Your task to perform on an android device: Add razer blade to the cart on newegg.com, then select checkout. Image 0: 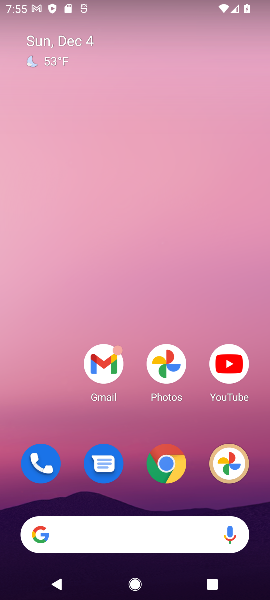
Step 0: click (150, 530)
Your task to perform on an android device: Add razer blade to the cart on newegg.com, then select checkout. Image 1: 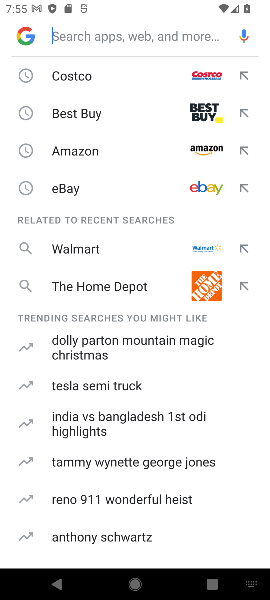
Step 1: type "newegg"
Your task to perform on an android device: Add razer blade to the cart on newegg.com, then select checkout. Image 2: 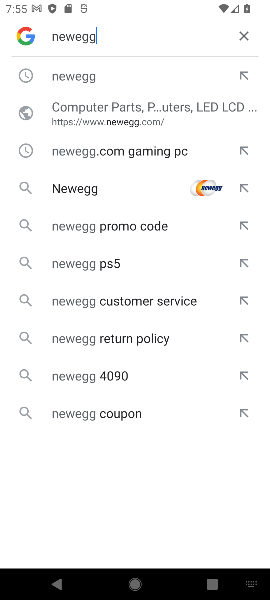
Step 2: click (109, 100)
Your task to perform on an android device: Add razer blade to the cart on newegg.com, then select checkout. Image 3: 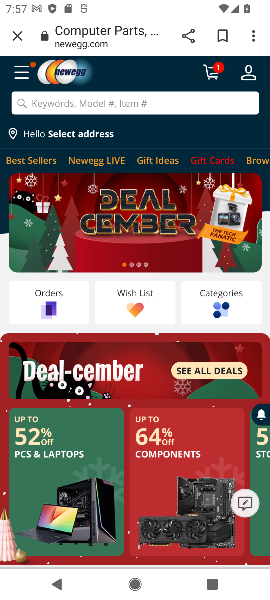
Step 3: click (132, 98)
Your task to perform on an android device: Add razer blade to the cart on newegg.com, then select checkout. Image 4: 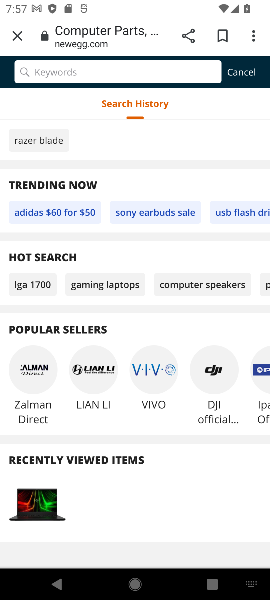
Step 4: type "razer bllade"
Your task to perform on an android device: Add razer blade to the cart on newegg.com, then select checkout. Image 5: 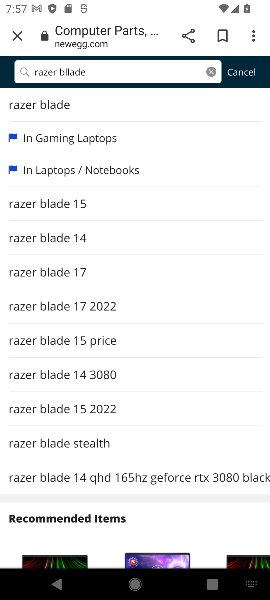
Step 5: click (64, 112)
Your task to perform on an android device: Add razer blade to the cart on newegg.com, then select checkout. Image 6: 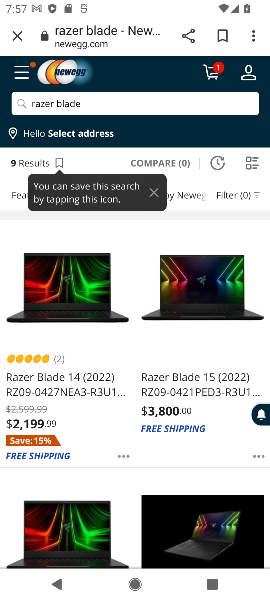
Step 6: click (30, 388)
Your task to perform on an android device: Add razer blade to the cart on newegg.com, then select checkout. Image 7: 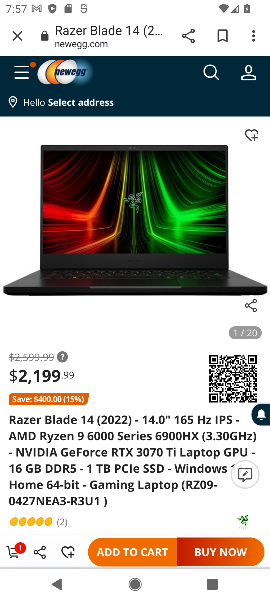
Step 7: click (133, 550)
Your task to perform on an android device: Add razer blade to the cart on newegg.com, then select checkout. Image 8: 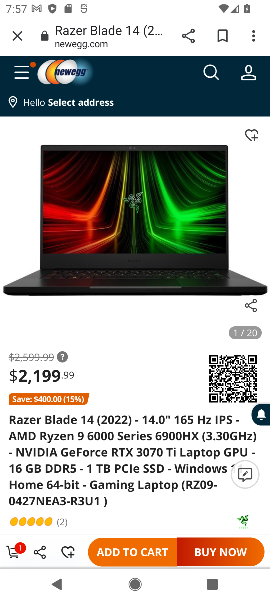
Step 8: task complete